Your task to perform on an android device: Open calendar and show me the fourth week of next month Image 0: 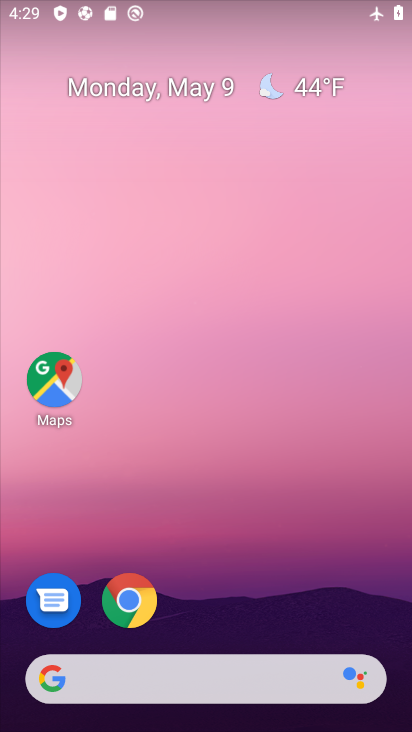
Step 0: drag from (278, 593) to (273, 1)
Your task to perform on an android device: Open calendar and show me the fourth week of next month Image 1: 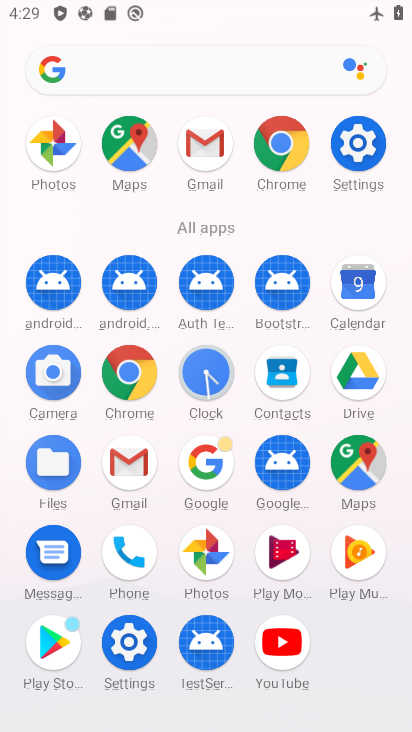
Step 1: click (353, 282)
Your task to perform on an android device: Open calendar and show me the fourth week of next month Image 2: 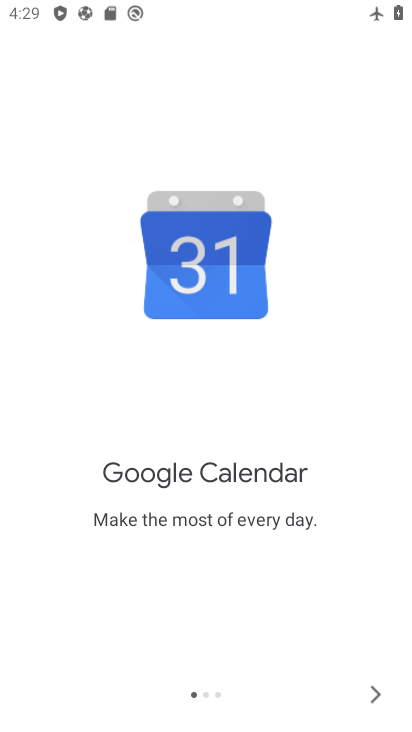
Step 2: click (372, 692)
Your task to perform on an android device: Open calendar and show me the fourth week of next month Image 3: 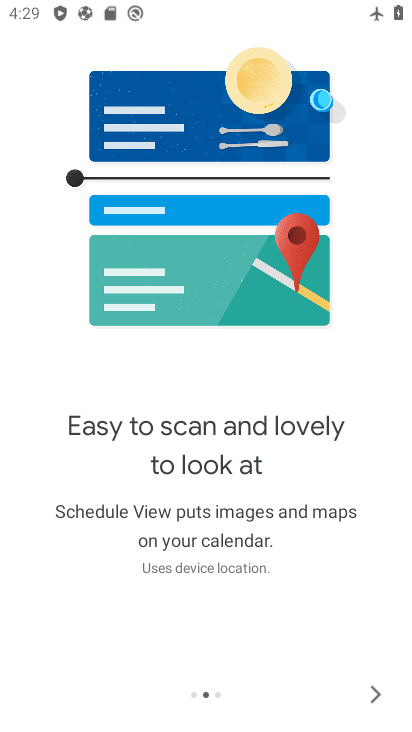
Step 3: click (371, 690)
Your task to perform on an android device: Open calendar and show me the fourth week of next month Image 4: 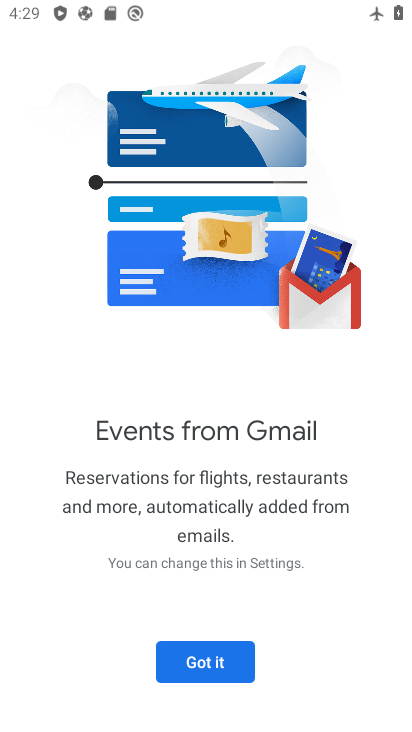
Step 4: click (229, 655)
Your task to perform on an android device: Open calendar and show me the fourth week of next month Image 5: 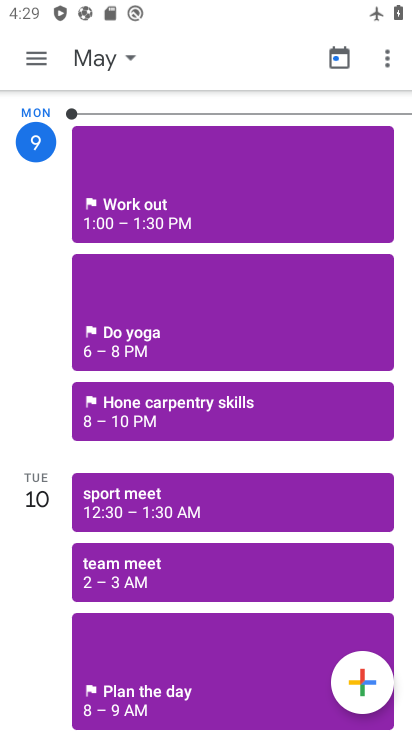
Step 5: click (32, 52)
Your task to perform on an android device: Open calendar and show me the fourth week of next month Image 6: 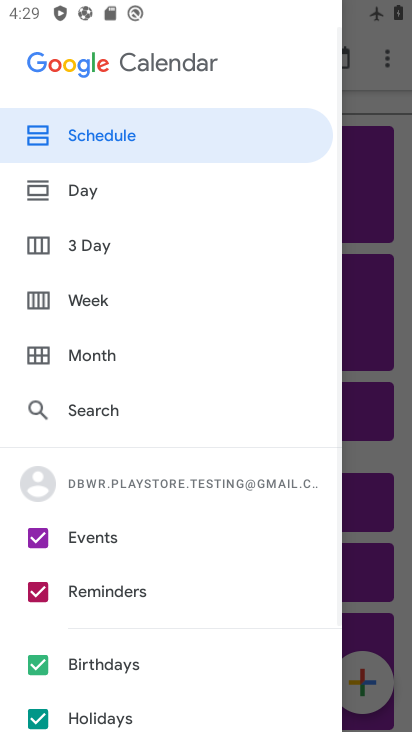
Step 6: click (76, 354)
Your task to perform on an android device: Open calendar and show me the fourth week of next month Image 7: 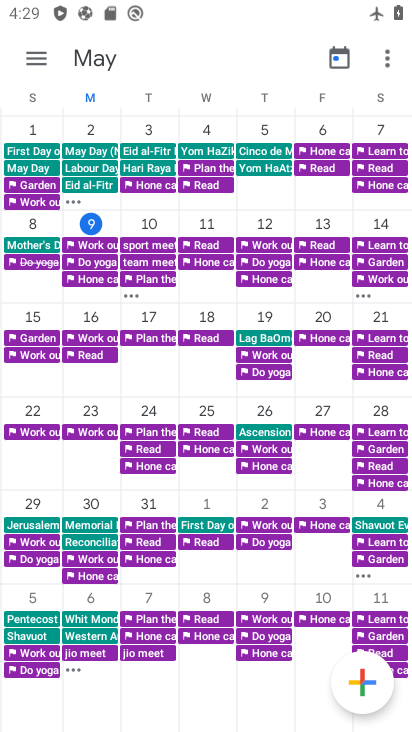
Step 7: drag from (357, 402) to (17, 415)
Your task to perform on an android device: Open calendar and show me the fourth week of next month Image 8: 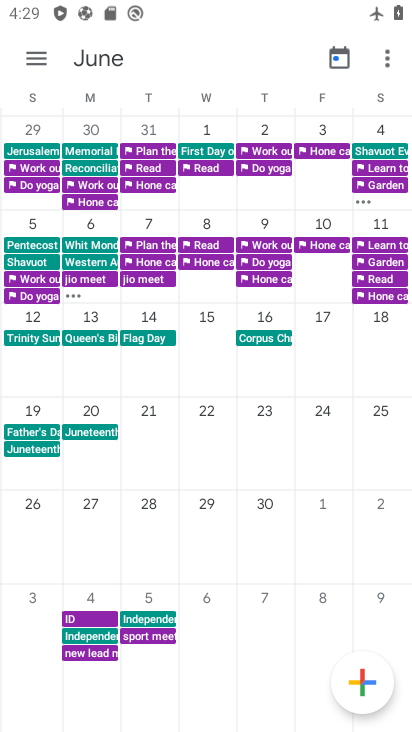
Step 8: click (37, 497)
Your task to perform on an android device: Open calendar and show me the fourth week of next month Image 9: 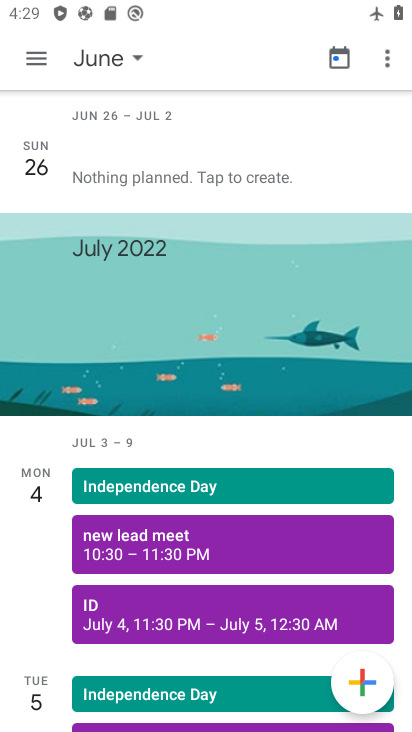
Step 9: click (36, 56)
Your task to perform on an android device: Open calendar and show me the fourth week of next month Image 10: 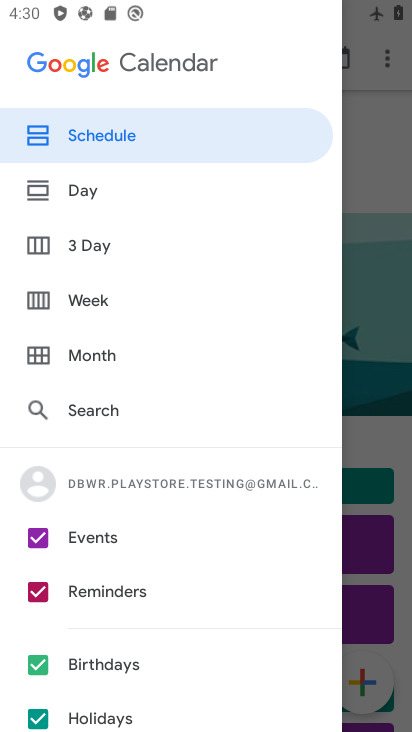
Step 10: click (94, 289)
Your task to perform on an android device: Open calendar and show me the fourth week of next month Image 11: 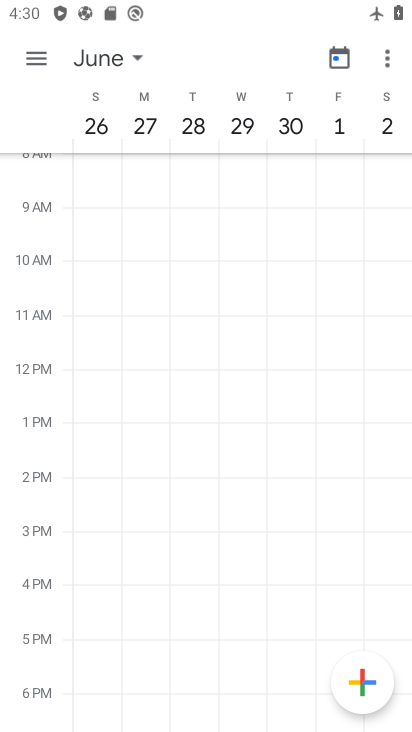
Step 11: task complete